Your task to perform on an android device: move an email to a new category in the gmail app Image 0: 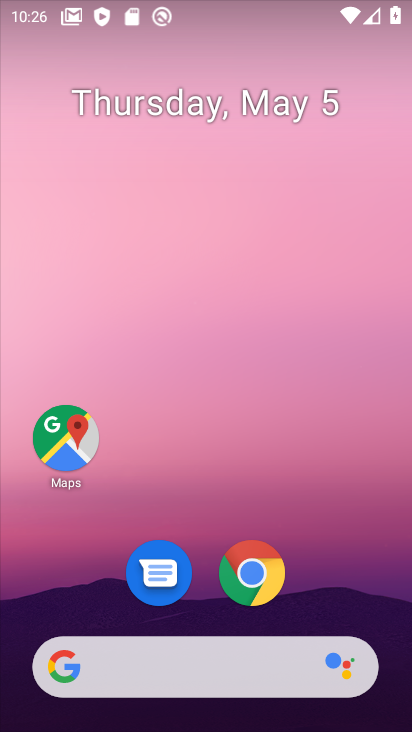
Step 0: drag from (82, 488) to (246, 118)
Your task to perform on an android device: move an email to a new category in the gmail app Image 1: 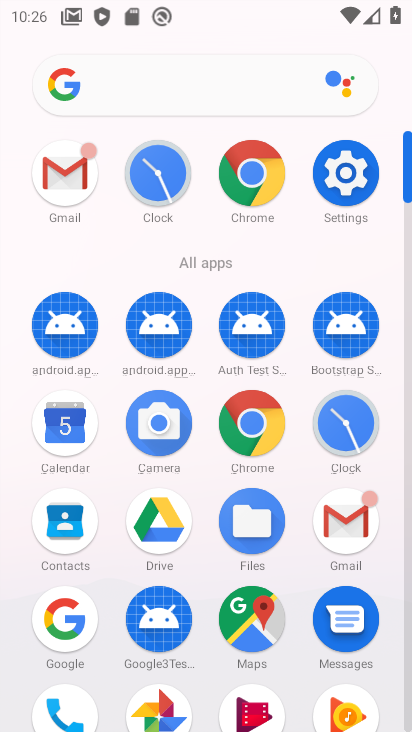
Step 1: click (360, 515)
Your task to perform on an android device: move an email to a new category in the gmail app Image 2: 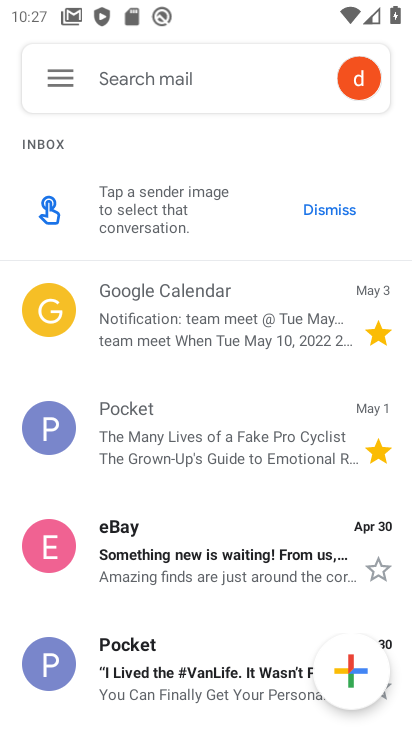
Step 2: click (222, 571)
Your task to perform on an android device: move an email to a new category in the gmail app Image 3: 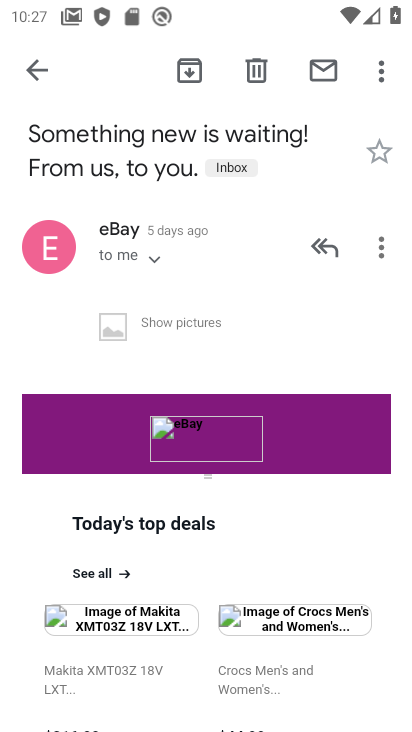
Step 3: click (382, 76)
Your task to perform on an android device: move an email to a new category in the gmail app Image 4: 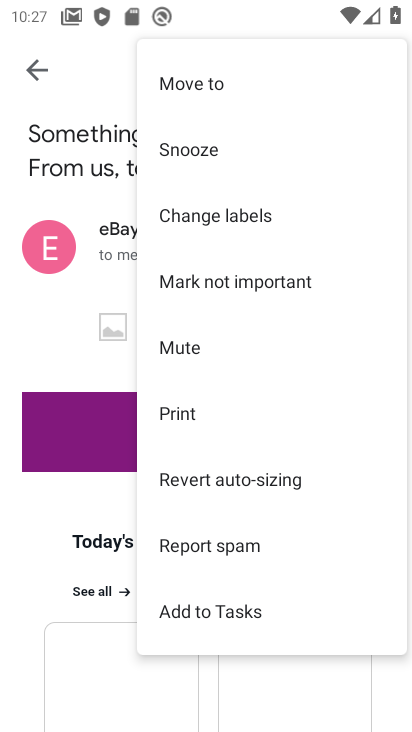
Step 4: click (212, 90)
Your task to perform on an android device: move an email to a new category in the gmail app Image 5: 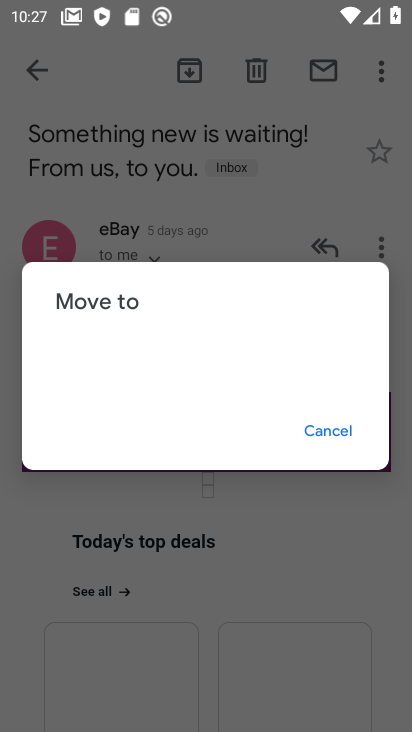
Step 5: task complete